Your task to perform on an android device: Open the map Image 0: 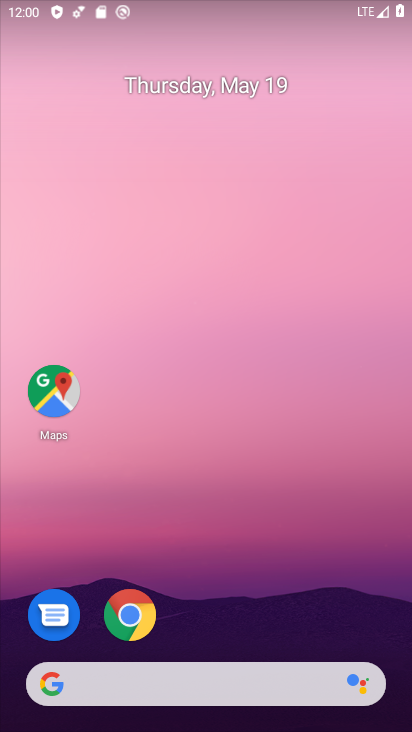
Step 0: drag from (250, 589) to (230, 65)
Your task to perform on an android device: Open the map Image 1: 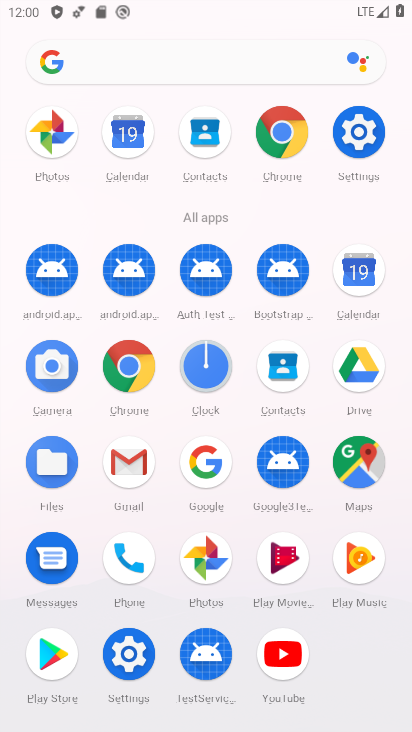
Step 1: click (355, 462)
Your task to perform on an android device: Open the map Image 2: 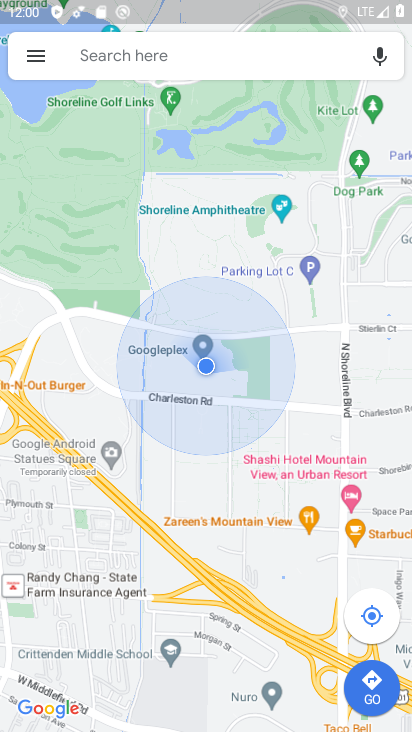
Step 2: task complete